Your task to perform on an android device: Open the Google play store app Image 0: 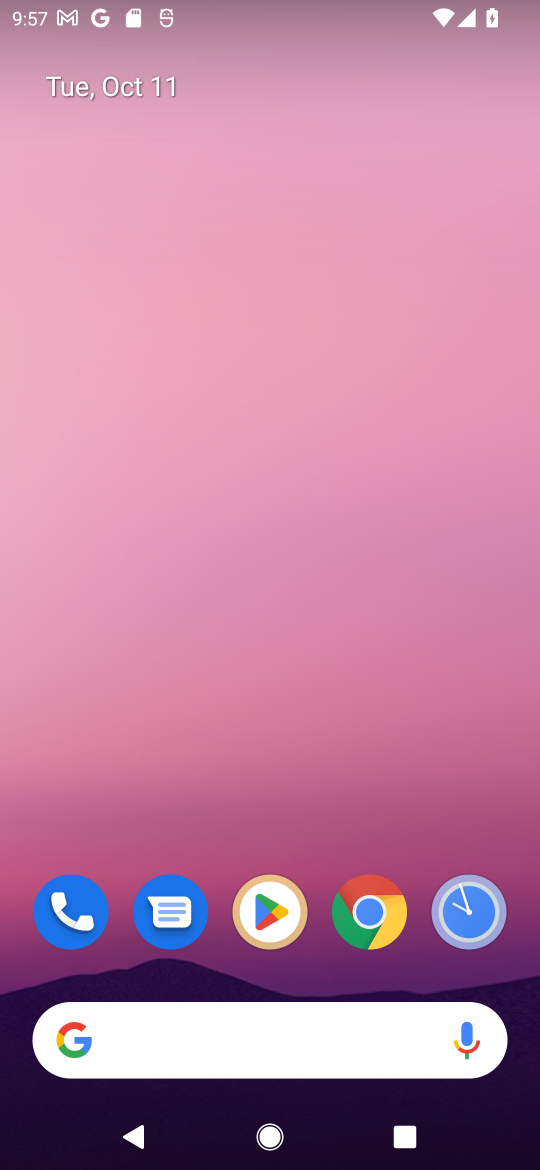
Step 0: click (274, 910)
Your task to perform on an android device: Open the Google play store app Image 1: 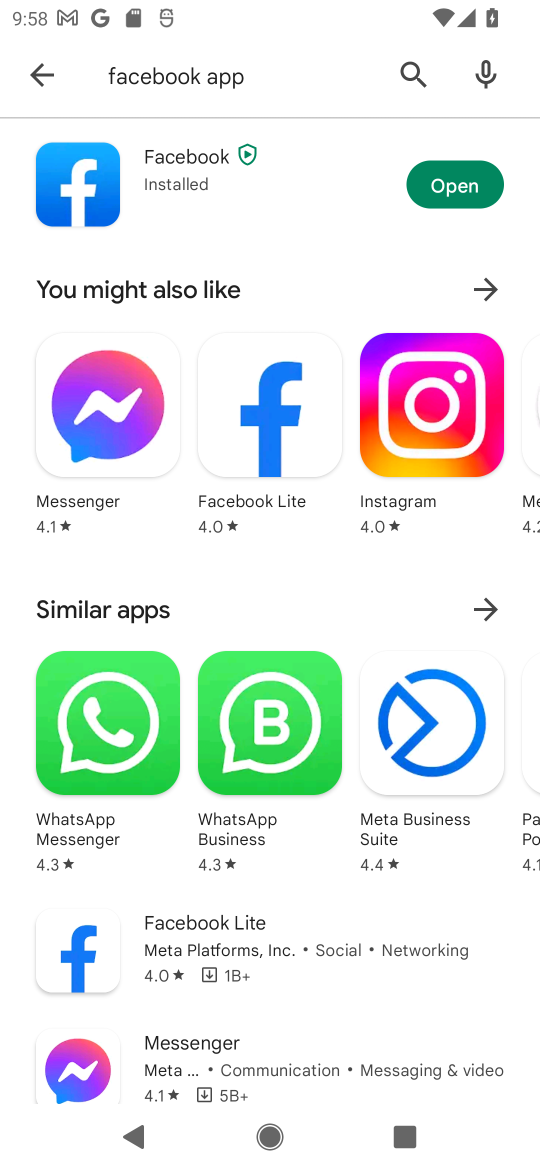
Step 1: task complete